Your task to perform on an android device: check out phone information Image 0: 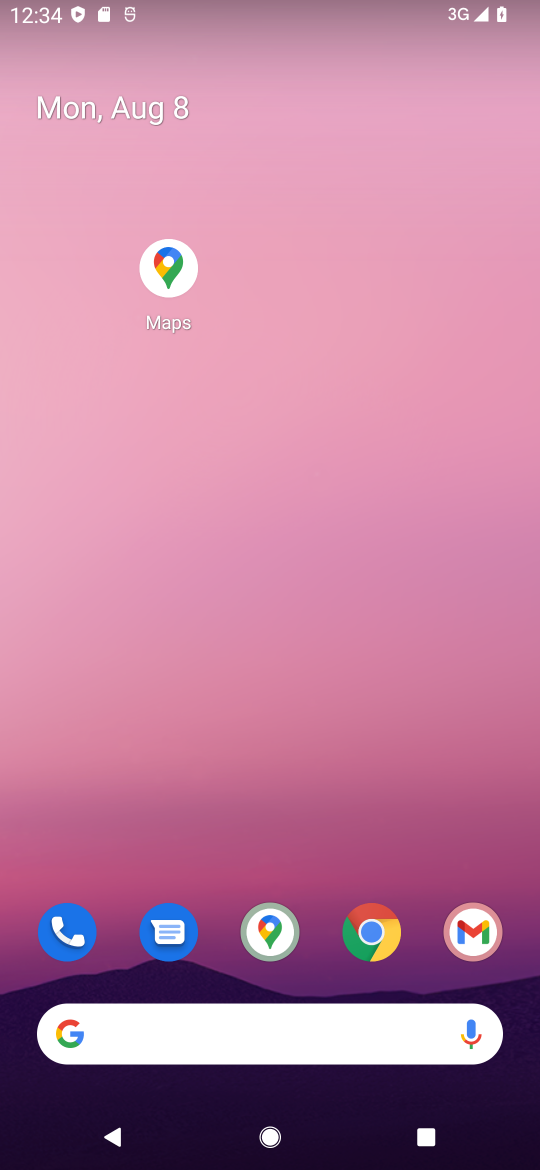
Step 0: click (269, 951)
Your task to perform on an android device: check out phone information Image 1: 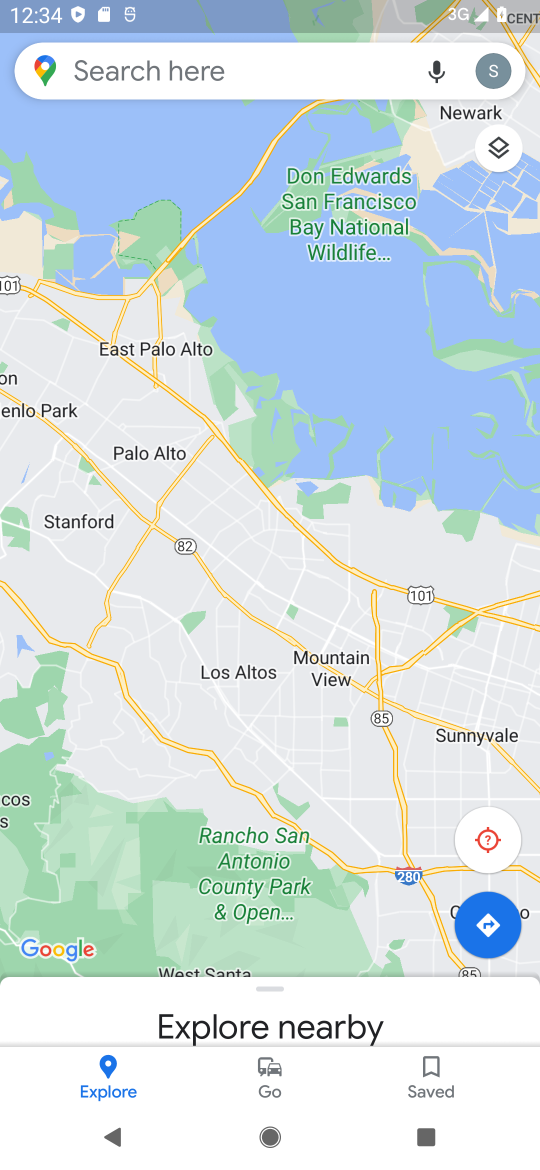
Step 1: click (198, 82)
Your task to perform on an android device: check out phone information Image 2: 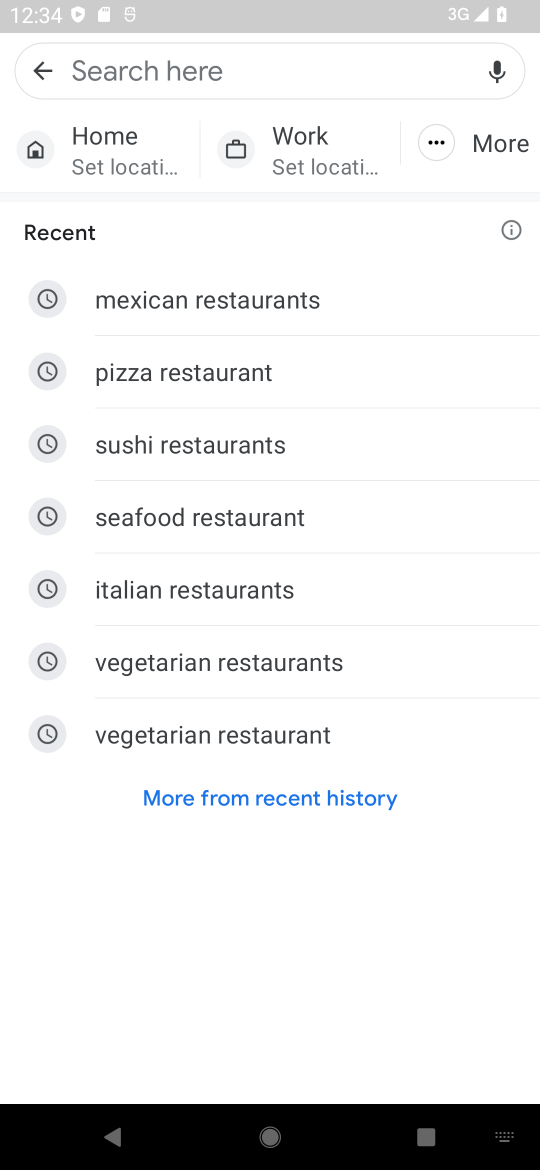
Step 2: click (138, 590)
Your task to perform on an android device: check out phone information Image 3: 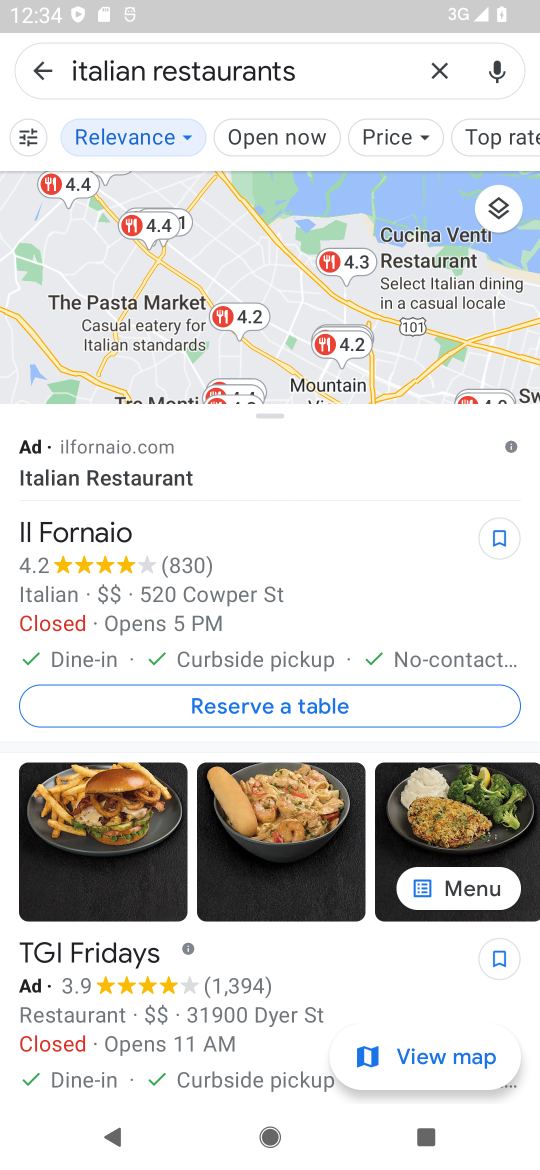
Step 3: task complete